Your task to perform on an android device: toggle notifications settings in the gmail app Image 0: 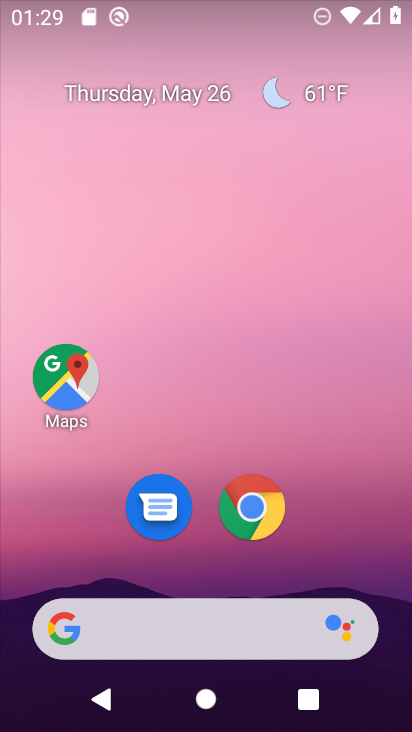
Step 0: drag from (330, 569) to (304, 169)
Your task to perform on an android device: toggle notifications settings in the gmail app Image 1: 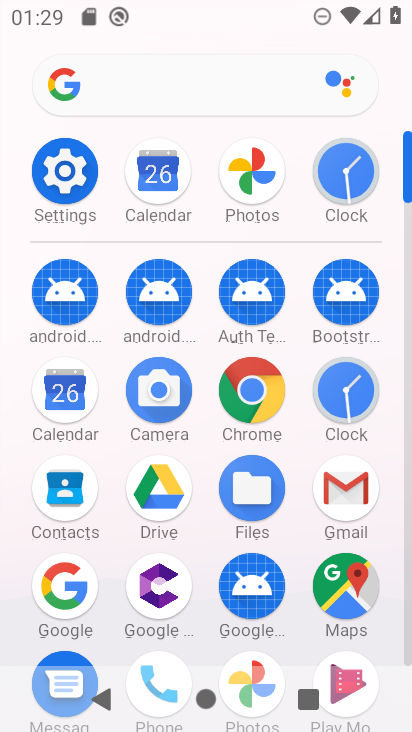
Step 1: click (333, 484)
Your task to perform on an android device: toggle notifications settings in the gmail app Image 2: 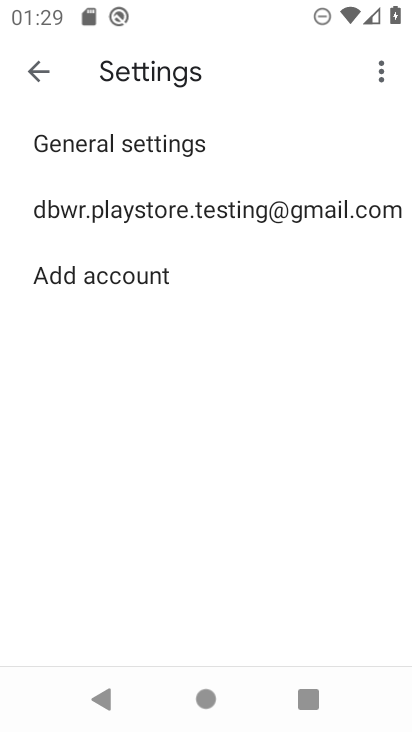
Step 2: click (183, 217)
Your task to perform on an android device: toggle notifications settings in the gmail app Image 3: 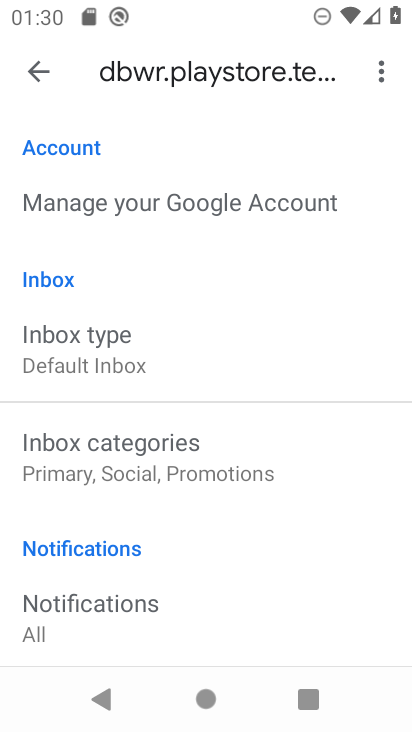
Step 3: drag from (131, 603) to (135, 191)
Your task to perform on an android device: toggle notifications settings in the gmail app Image 4: 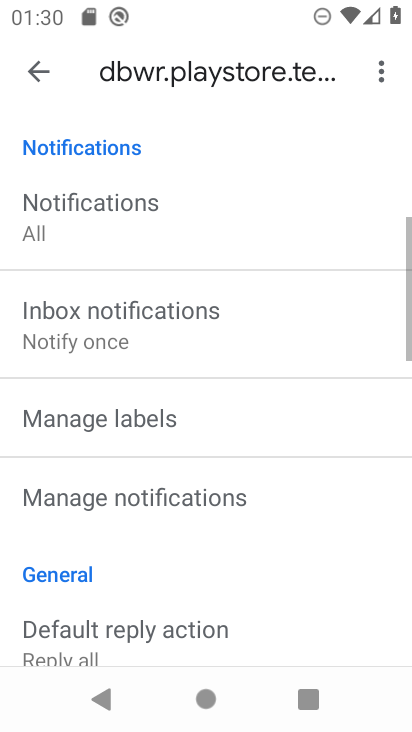
Step 4: click (131, 484)
Your task to perform on an android device: toggle notifications settings in the gmail app Image 5: 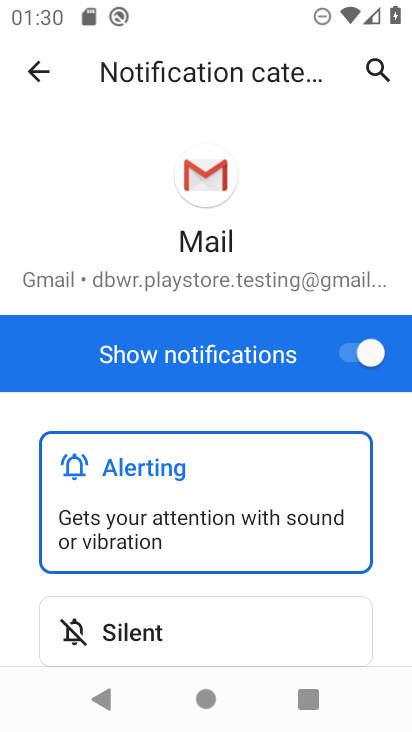
Step 5: click (339, 347)
Your task to perform on an android device: toggle notifications settings in the gmail app Image 6: 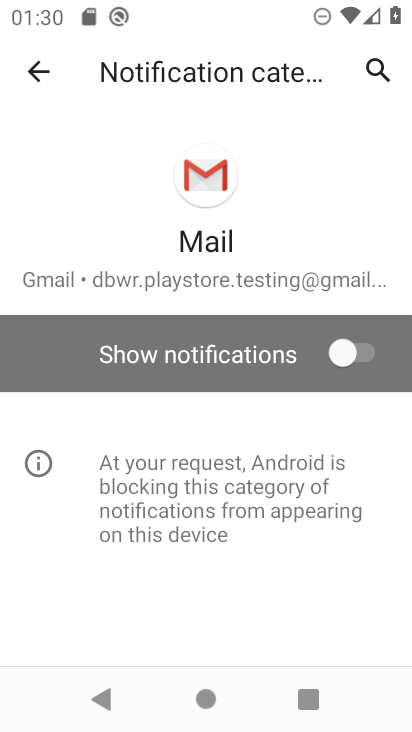
Step 6: task complete